Your task to perform on an android device: change keyboard looks Image 0: 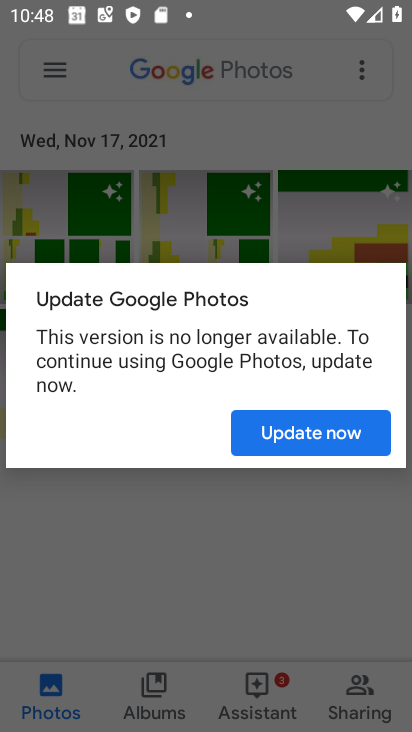
Step 0: press home button
Your task to perform on an android device: change keyboard looks Image 1: 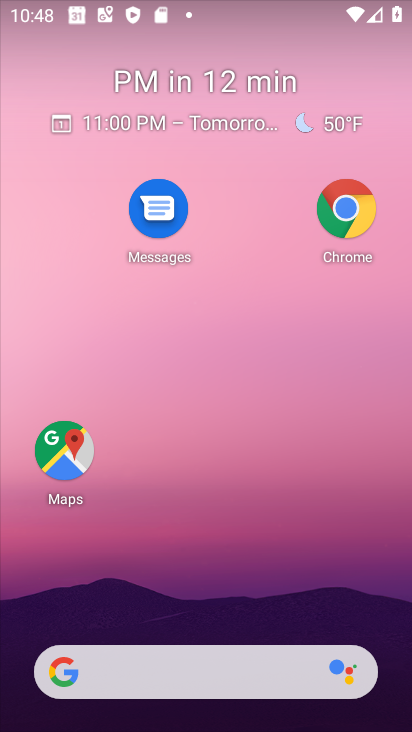
Step 1: drag from (184, 637) to (155, 30)
Your task to perform on an android device: change keyboard looks Image 2: 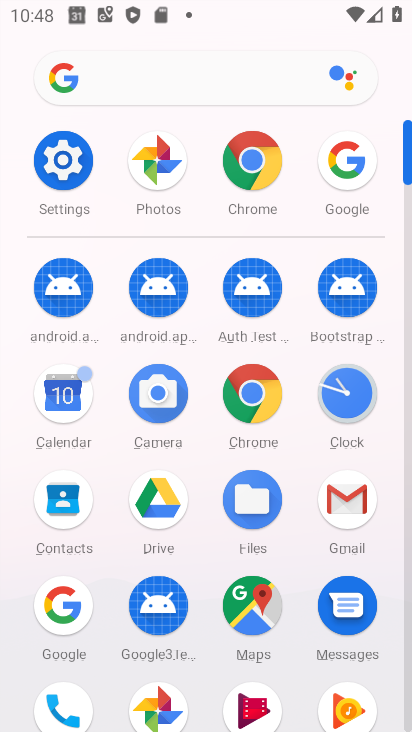
Step 2: click (52, 158)
Your task to perform on an android device: change keyboard looks Image 3: 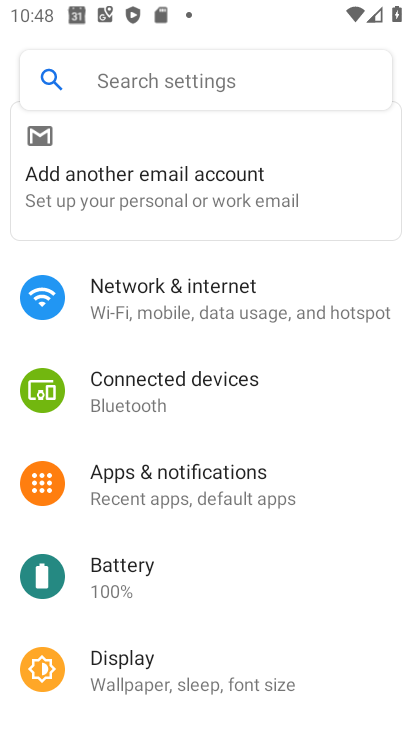
Step 3: drag from (186, 542) to (163, 53)
Your task to perform on an android device: change keyboard looks Image 4: 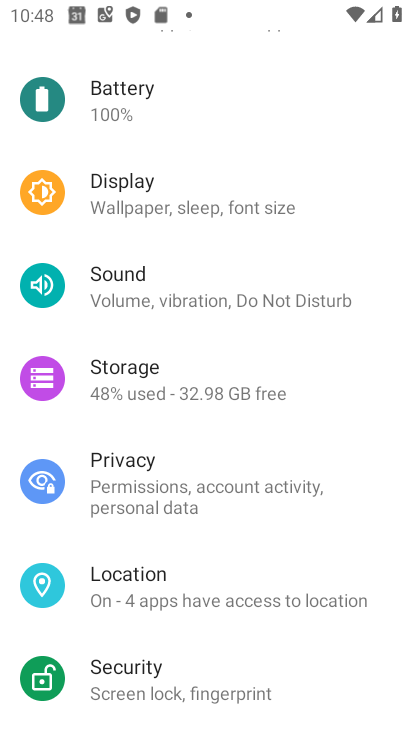
Step 4: drag from (195, 571) to (168, 178)
Your task to perform on an android device: change keyboard looks Image 5: 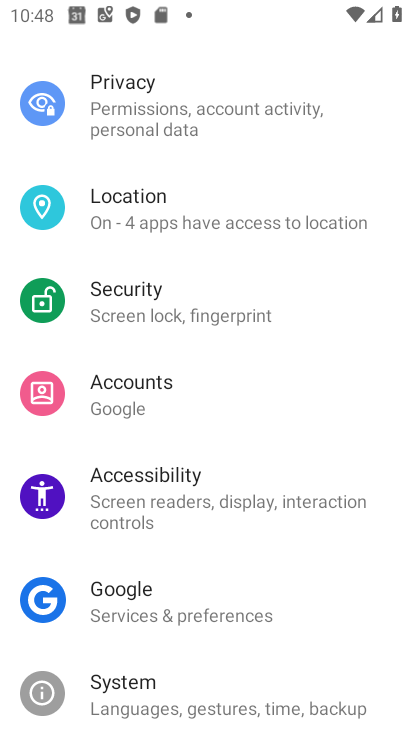
Step 5: click (168, 684)
Your task to perform on an android device: change keyboard looks Image 6: 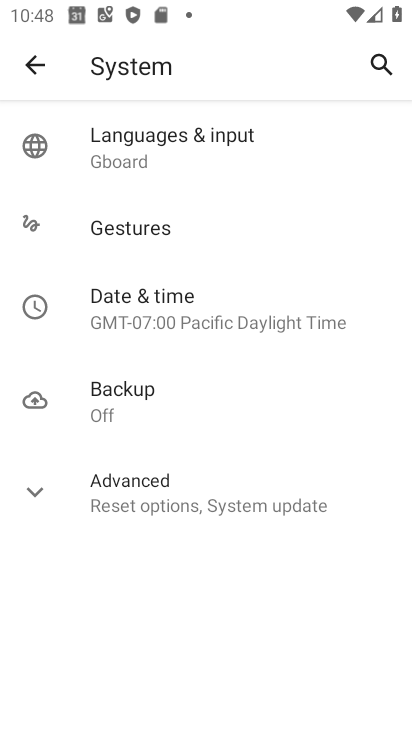
Step 6: click (157, 503)
Your task to perform on an android device: change keyboard looks Image 7: 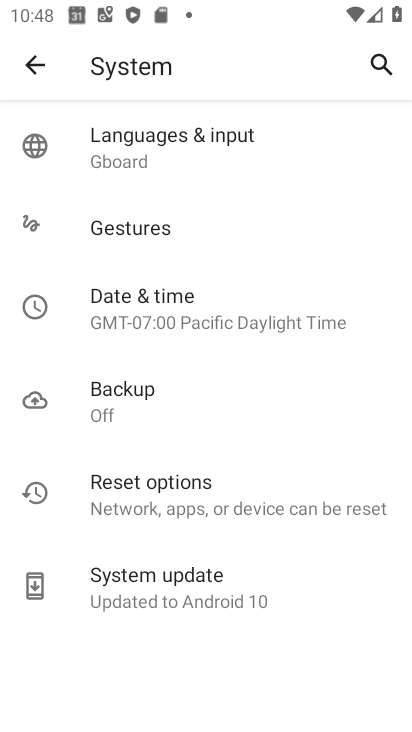
Step 7: click (172, 155)
Your task to perform on an android device: change keyboard looks Image 8: 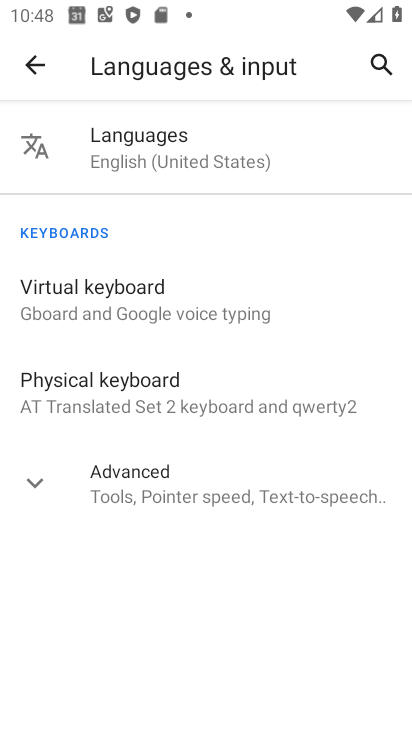
Step 8: click (112, 305)
Your task to perform on an android device: change keyboard looks Image 9: 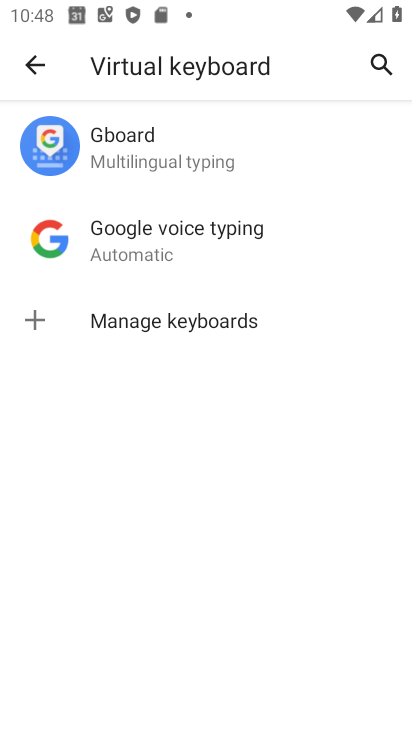
Step 9: click (86, 155)
Your task to perform on an android device: change keyboard looks Image 10: 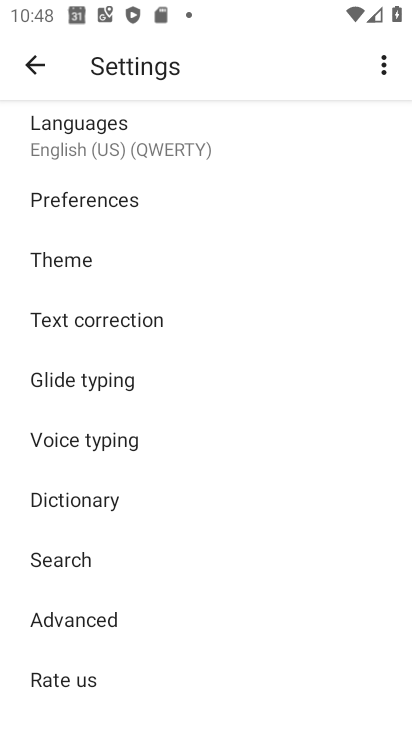
Step 10: click (71, 267)
Your task to perform on an android device: change keyboard looks Image 11: 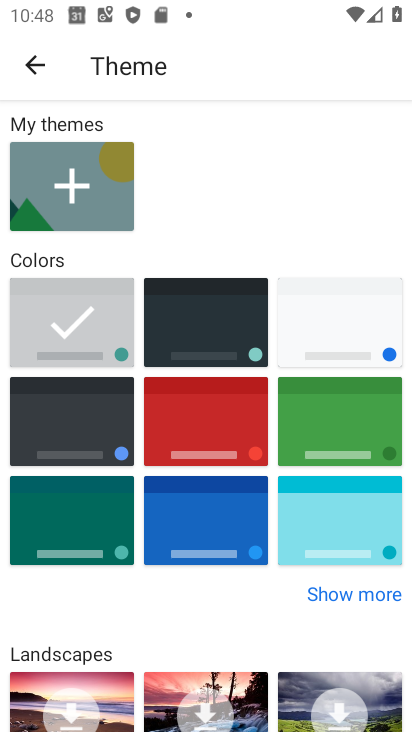
Step 11: click (242, 318)
Your task to perform on an android device: change keyboard looks Image 12: 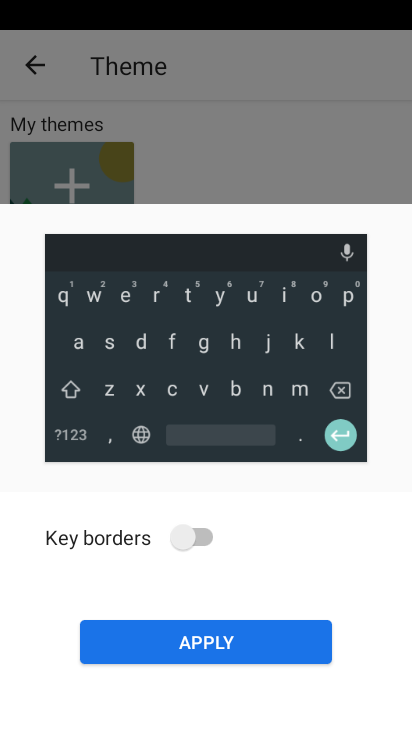
Step 12: click (198, 646)
Your task to perform on an android device: change keyboard looks Image 13: 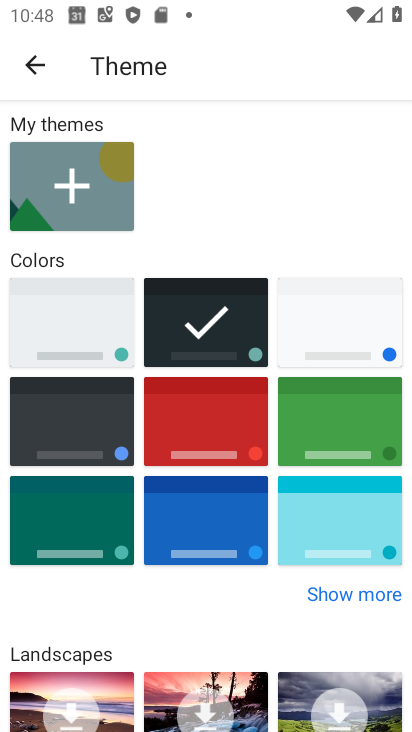
Step 13: task complete